Your task to perform on an android device: set default search engine in the chrome app Image 0: 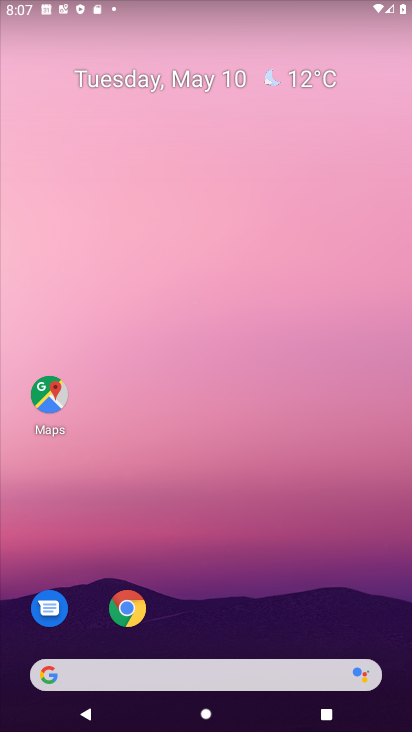
Step 0: drag from (174, 679) to (317, 262)
Your task to perform on an android device: set default search engine in the chrome app Image 1: 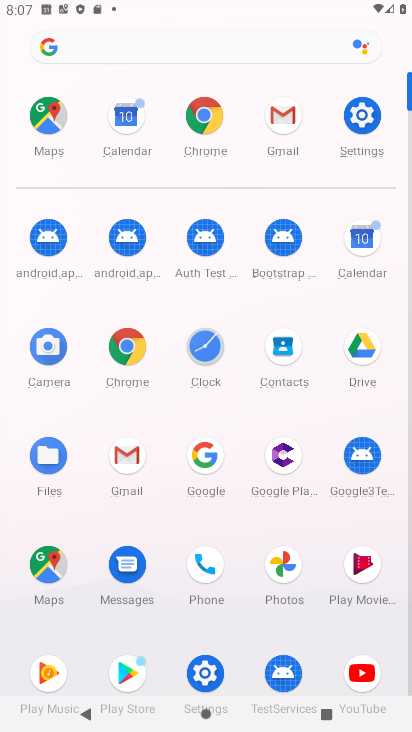
Step 1: click (206, 122)
Your task to perform on an android device: set default search engine in the chrome app Image 2: 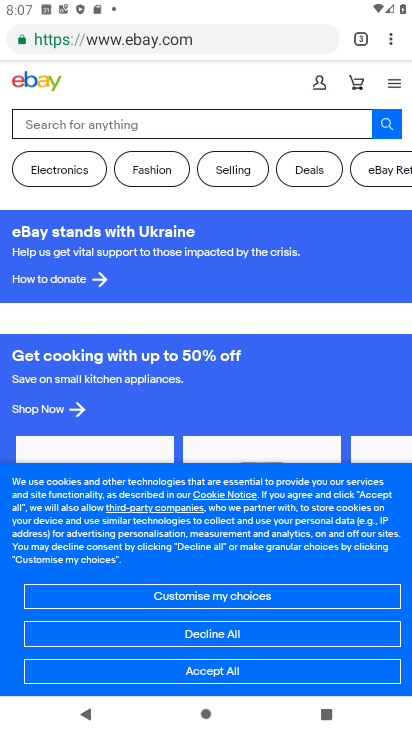
Step 2: drag from (388, 34) to (258, 465)
Your task to perform on an android device: set default search engine in the chrome app Image 3: 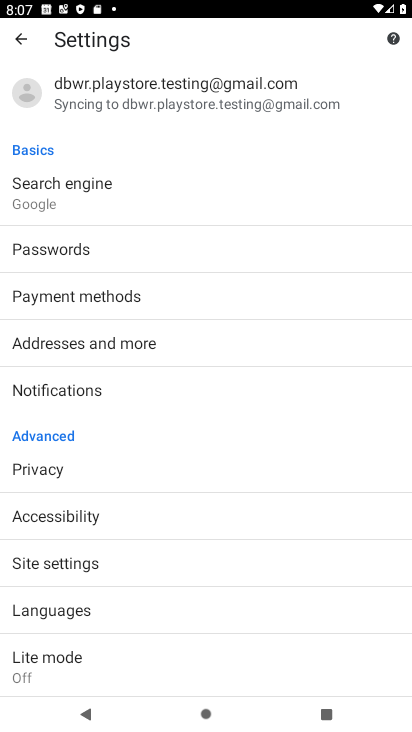
Step 3: click (80, 192)
Your task to perform on an android device: set default search engine in the chrome app Image 4: 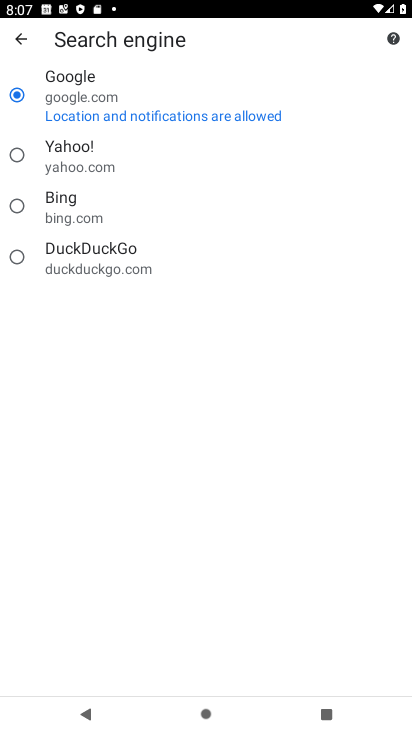
Step 4: click (16, 155)
Your task to perform on an android device: set default search engine in the chrome app Image 5: 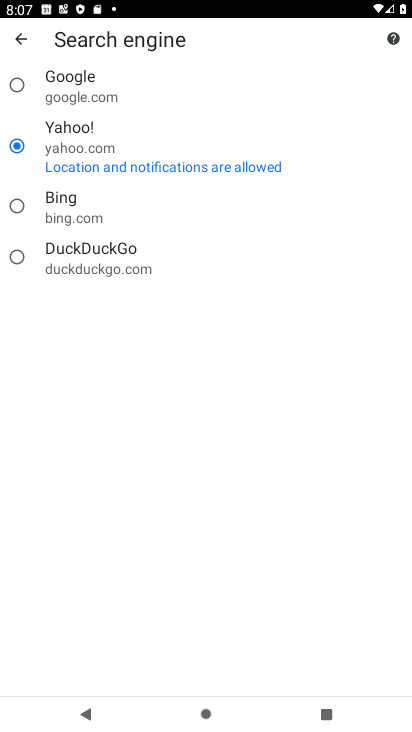
Step 5: task complete